Your task to perform on an android device: toggle pop-ups in chrome Image 0: 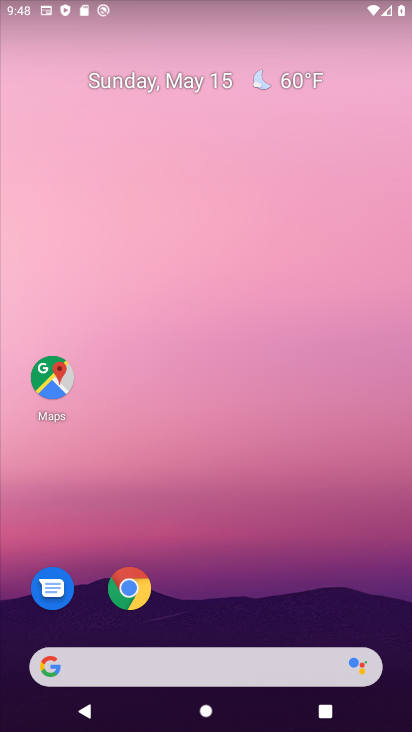
Step 0: drag from (263, 609) to (290, 420)
Your task to perform on an android device: toggle pop-ups in chrome Image 1: 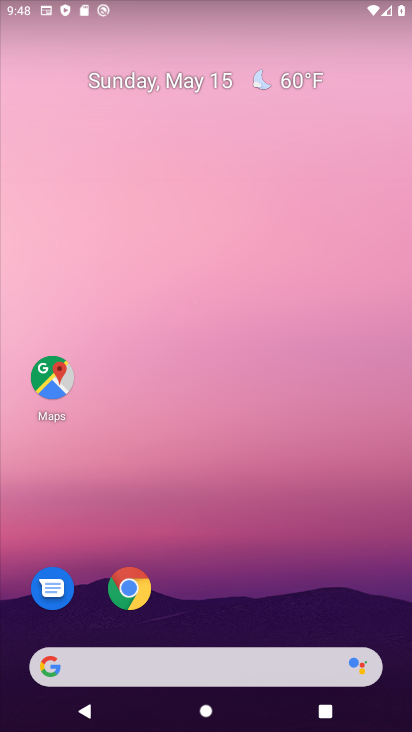
Step 1: drag from (226, 610) to (290, 80)
Your task to perform on an android device: toggle pop-ups in chrome Image 2: 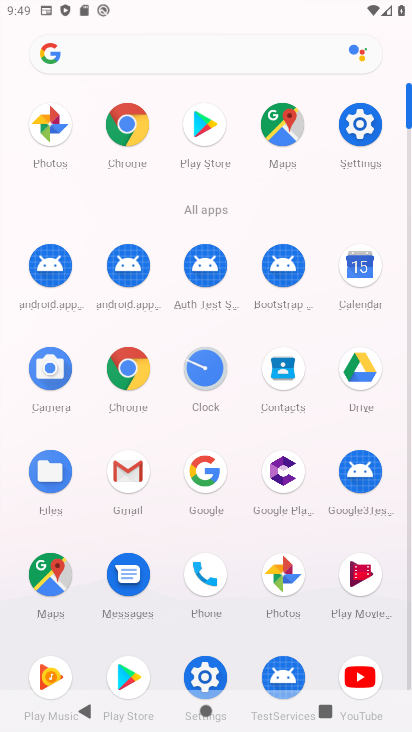
Step 2: click (125, 128)
Your task to perform on an android device: toggle pop-ups in chrome Image 3: 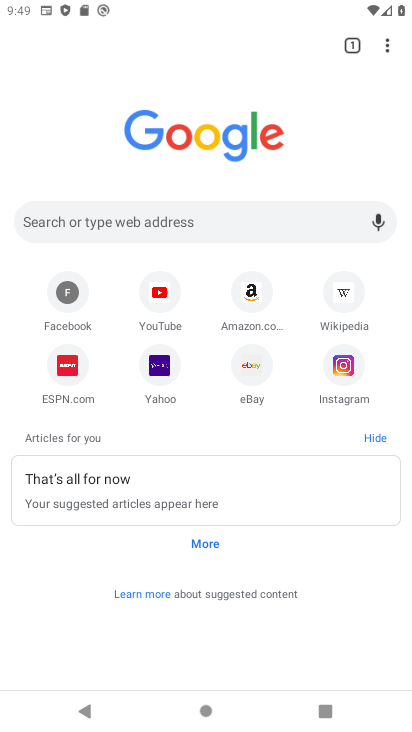
Step 3: click (384, 46)
Your task to perform on an android device: toggle pop-ups in chrome Image 4: 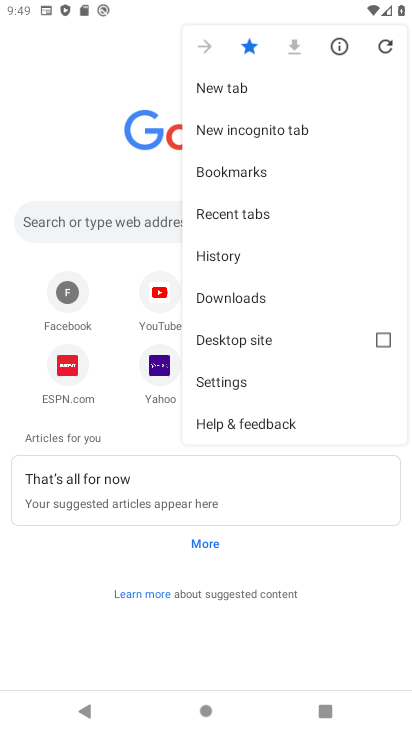
Step 4: click (298, 377)
Your task to perform on an android device: toggle pop-ups in chrome Image 5: 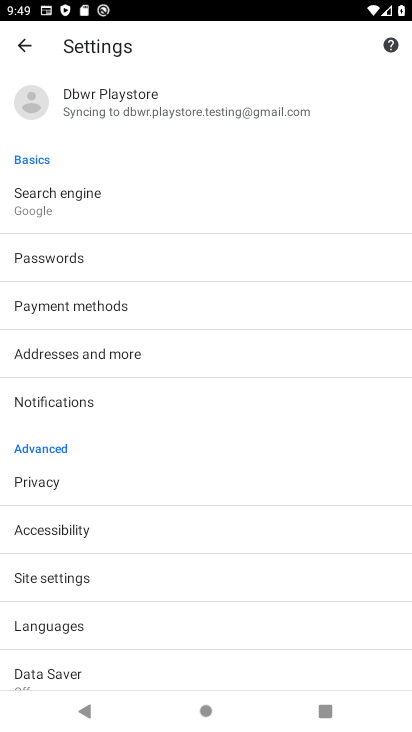
Step 5: click (258, 584)
Your task to perform on an android device: toggle pop-ups in chrome Image 6: 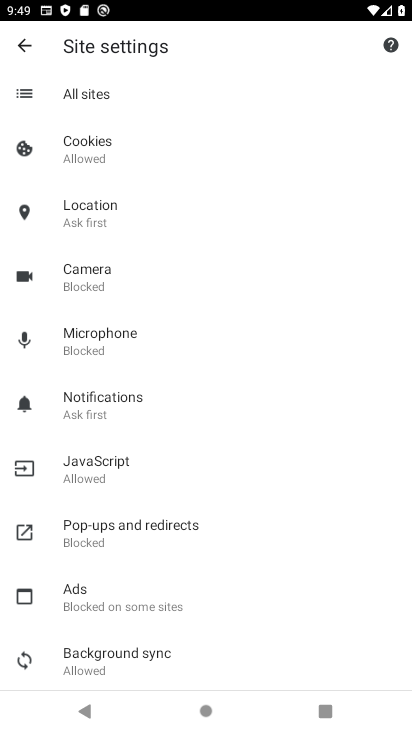
Step 6: click (231, 547)
Your task to perform on an android device: toggle pop-ups in chrome Image 7: 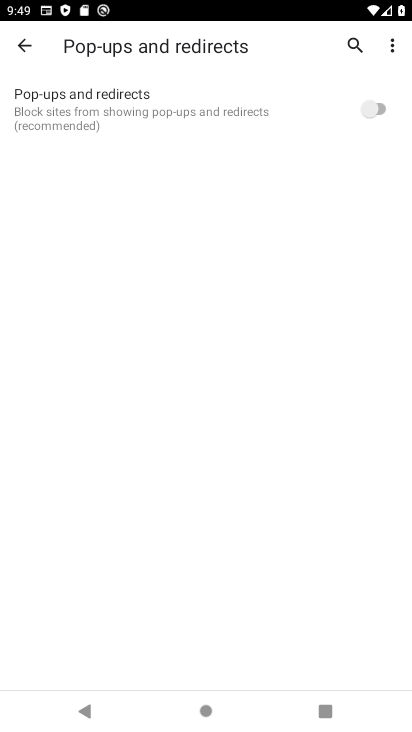
Step 7: click (382, 103)
Your task to perform on an android device: toggle pop-ups in chrome Image 8: 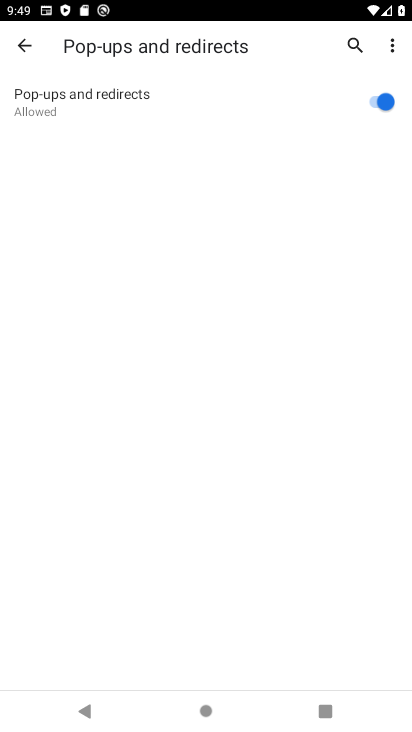
Step 8: task complete